Your task to perform on an android device: Open calendar and show me the fourth week of next month Image 0: 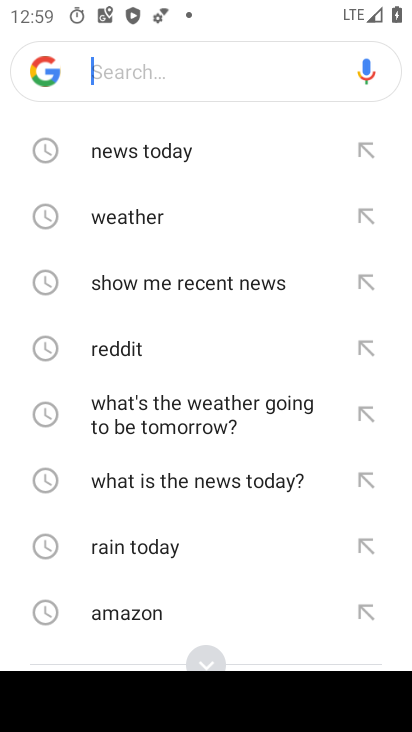
Step 0: press home button
Your task to perform on an android device: Open calendar and show me the fourth week of next month Image 1: 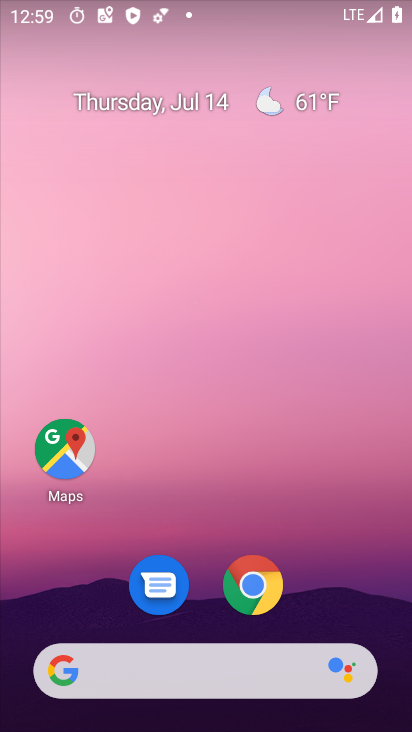
Step 1: click (253, 54)
Your task to perform on an android device: Open calendar and show me the fourth week of next month Image 2: 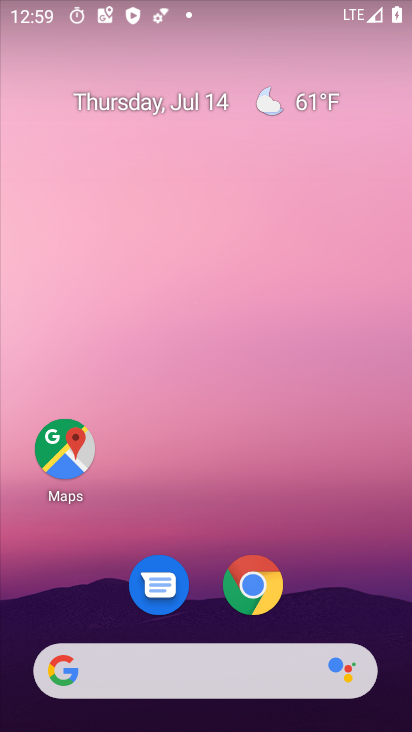
Step 2: drag from (348, 582) to (364, 12)
Your task to perform on an android device: Open calendar and show me the fourth week of next month Image 3: 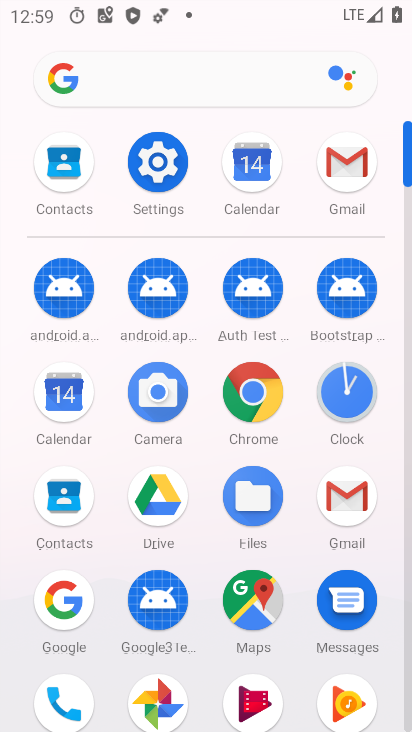
Step 3: click (68, 388)
Your task to perform on an android device: Open calendar and show me the fourth week of next month Image 4: 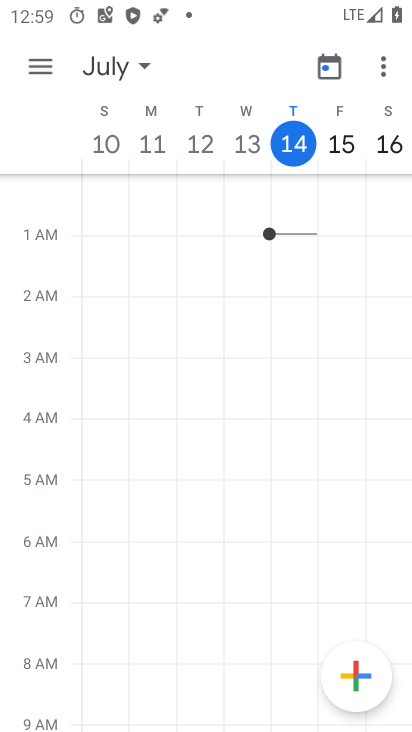
Step 4: click (31, 49)
Your task to perform on an android device: Open calendar and show me the fourth week of next month Image 5: 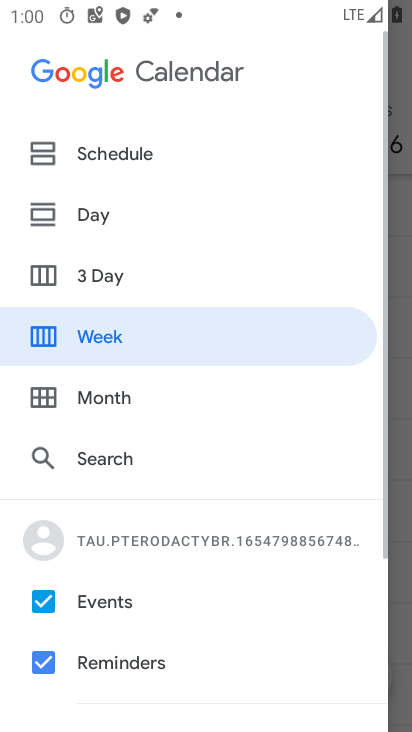
Step 5: click (41, 404)
Your task to perform on an android device: Open calendar and show me the fourth week of next month Image 6: 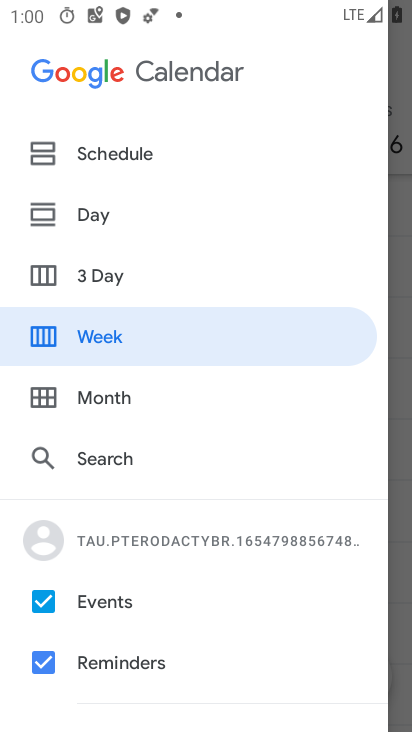
Step 6: click (41, 401)
Your task to perform on an android device: Open calendar and show me the fourth week of next month Image 7: 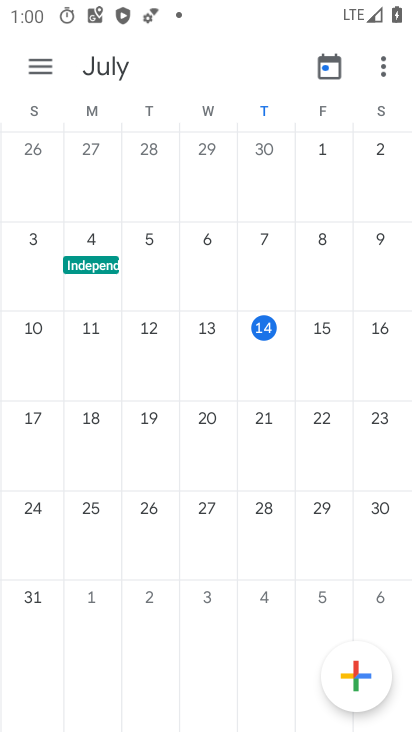
Step 7: click (34, 505)
Your task to perform on an android device: Open calendar and show me the fourth week of next month Image 8: 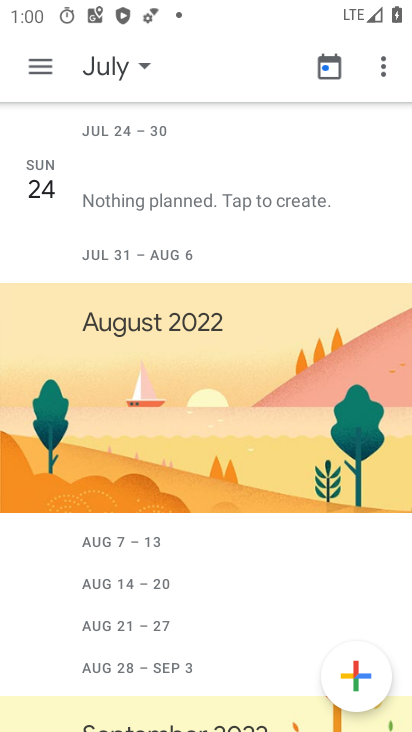
Step 8: click (38, 66)
Your task to perform on an android device: Open calendar and show me the fourth week of next month Image 9: 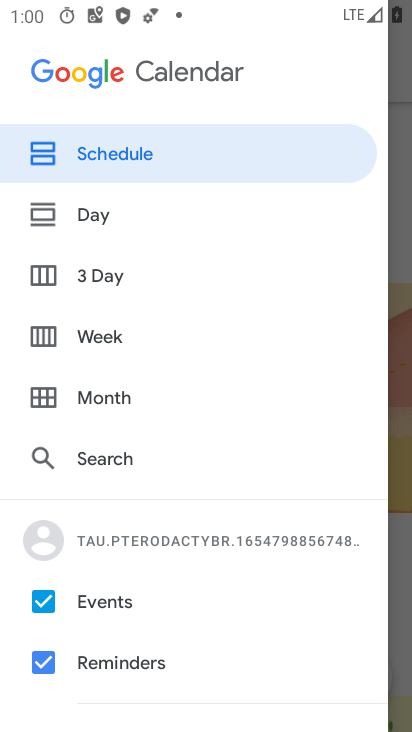
Step 9: click (37, 338)
Your task to perform on an android device: Open calendar and show me the fourth week of next month Image 10: 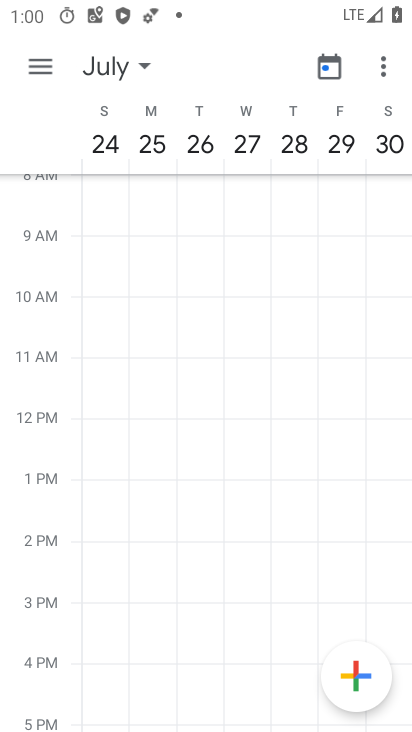
Step 10: task complete